Your task to perform on an android device: Open Maps and search for coffee Image 0: 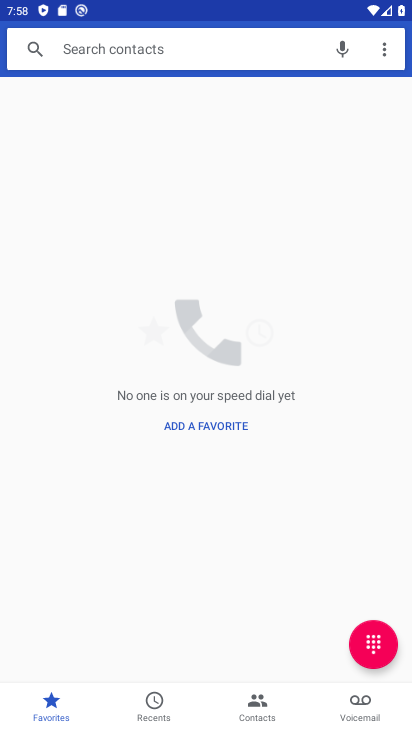
Step 0: press home button
Your task to perform on an android device: Open Maps and search for coffee Image 1: 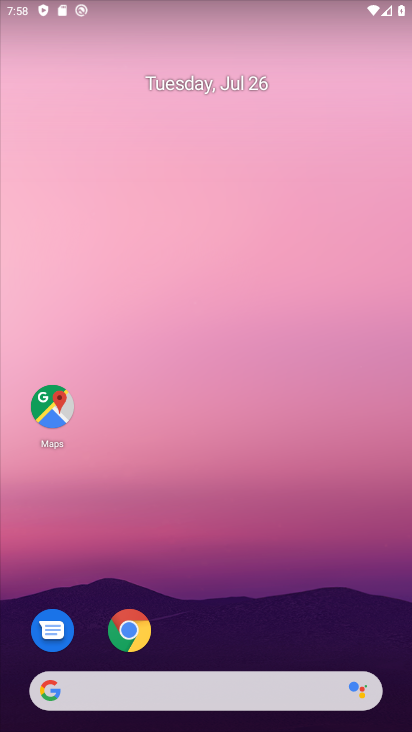
Step 1: click (34, 390)
Your task to perform on an android device: Open Maps and search for coffee Image 2: 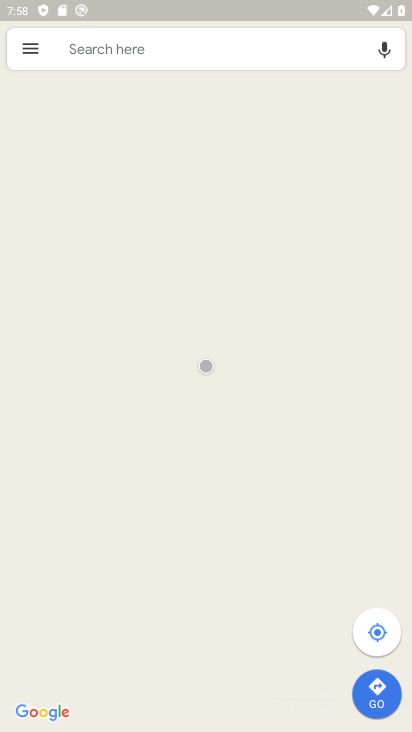
Step 2: click (183, 59)
Your task to perform on an android device: Open Maps and search for coffee Image 3: 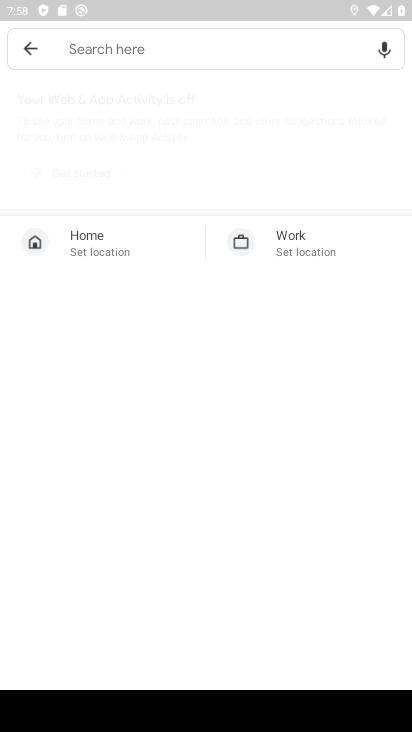
Step 3: click (174, 40)
Your task to perform on an android device: Open Maps and search for coffee Image 4: 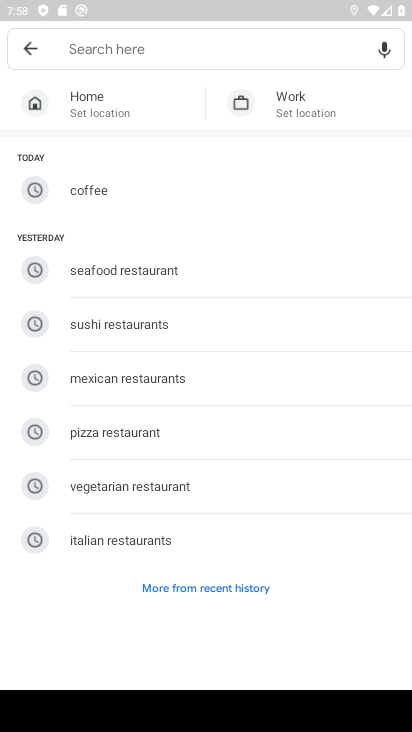
Step 4: click (99, 197)
Your task to perform on an android device: Open Maps and search for coffee Image 5: 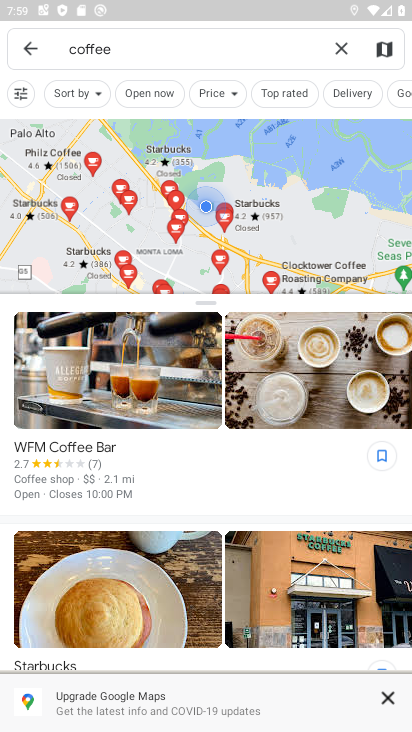
Step 5: task complete